Your task to perform on an android device: toggle pop-ups in chrome Image 0: 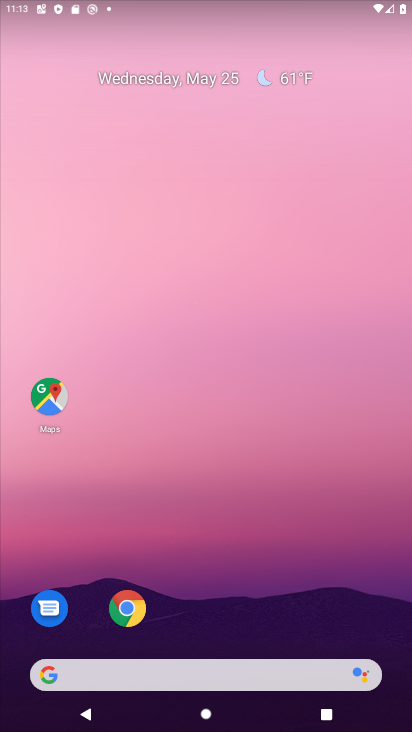
Step 0: click (119, 601)
Your task to perform on an android device: toggle pop-ups in chrome Image 1: 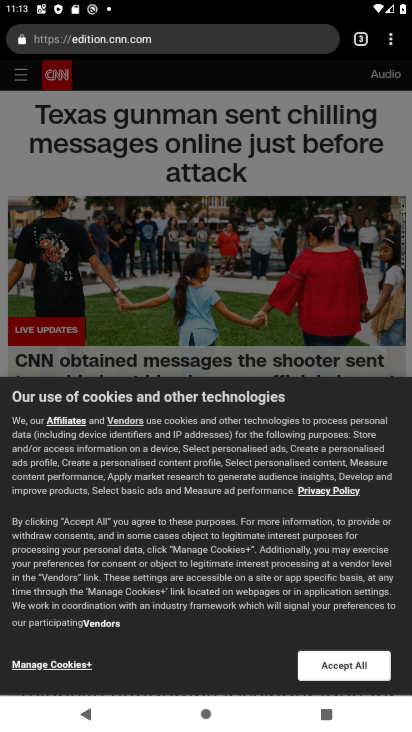
Step 1: drag from (391, 39) to (264, 430)
Your task to perform on an android device: toggle pop-ups in chrome Image 2: 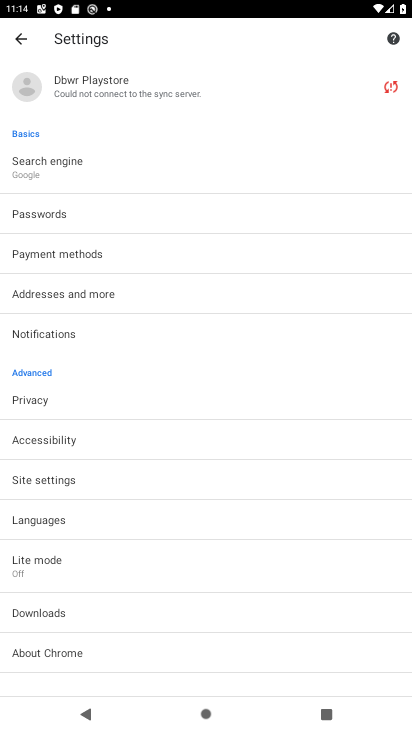
Step 2: click (80, 488)
Your task to perform on an android device: toggle pop-ups in chrome Image 3: 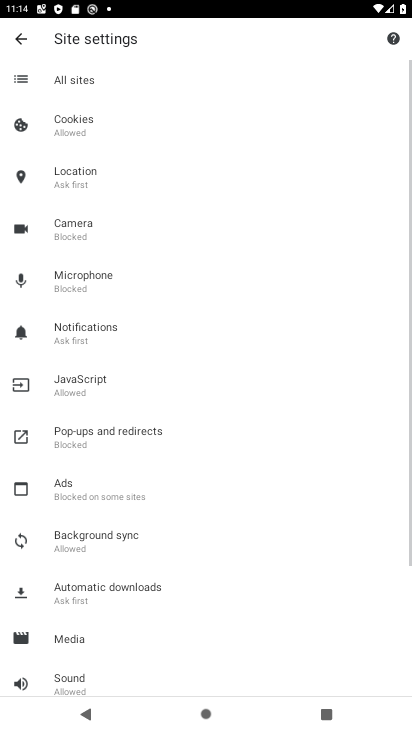
Step 3: click (113, 440)
Your task to perform on an android device: toggle pop-ups in chrome Image 4: 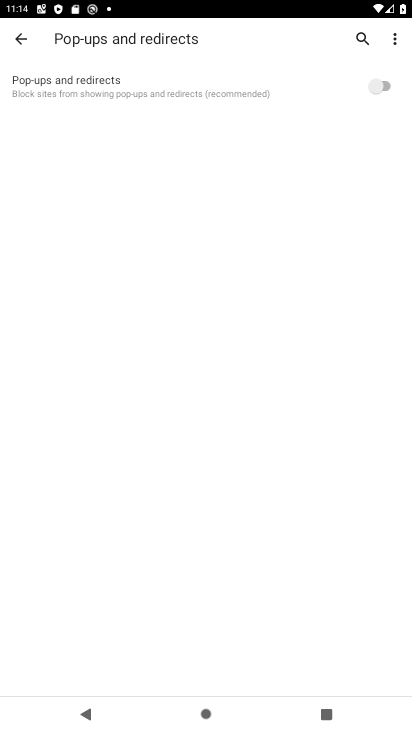
Step 4: click (380, 77)
Your task to perform on an android device: toggle pop-ups in chrome Image 5: 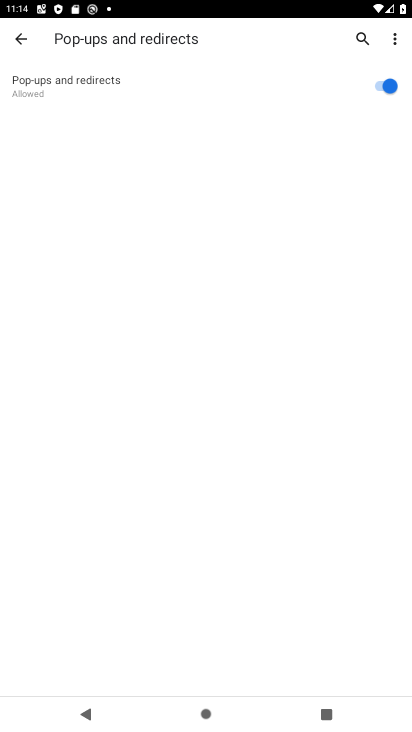
Step 5: task complete